Your task to perform on an android device: Open Wikipedia Image 0: 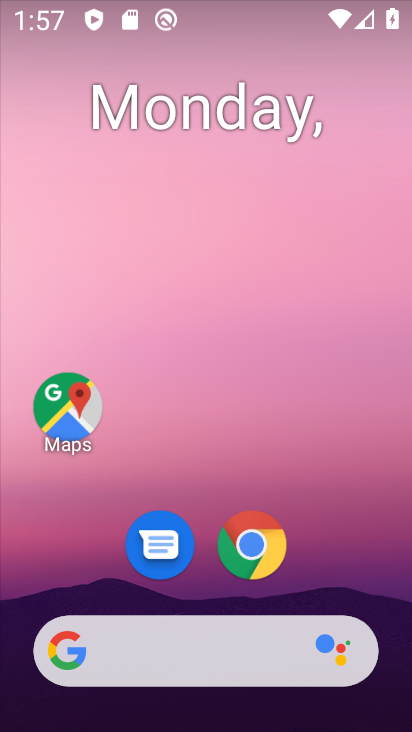
Step 0: drag from (233, 565) to (276, 203)
Your task to perform on an android device: Open Wikipedia Image 1: 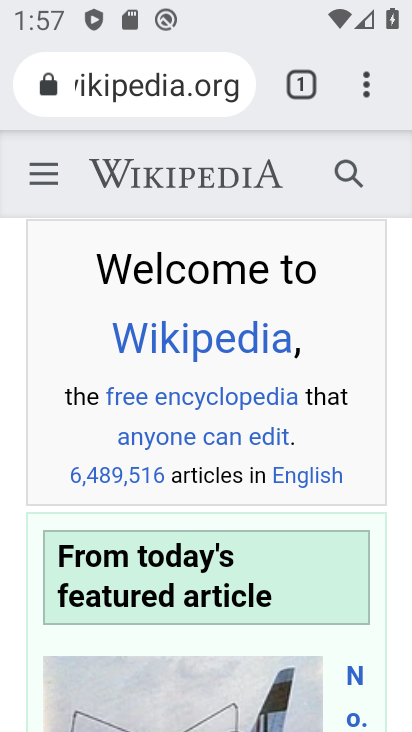
Step 1: press home button
Your task to perform on an android device: Open Wikipedia Image 2: 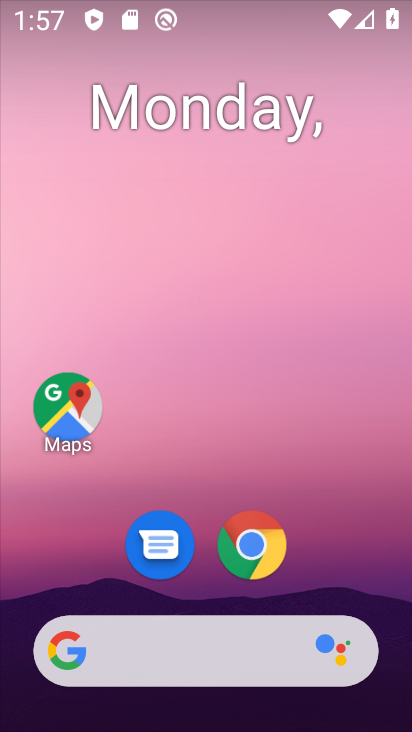
Step 2: drag from (194, 571) to (243, 119)
Your task to perform on an android device: Open Wikipedia Image 3: 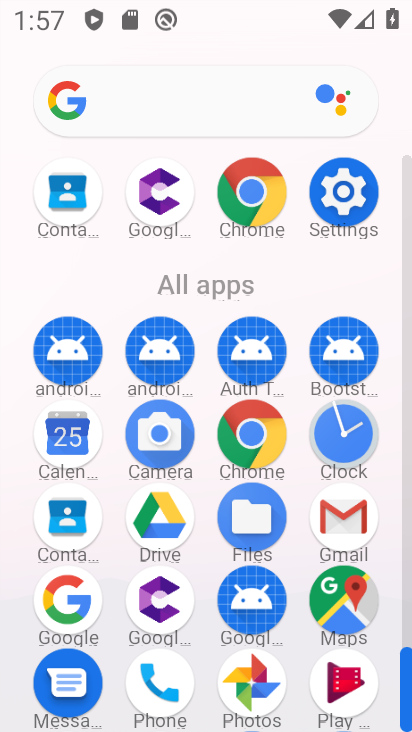
Step 3: click (254, 198)
Your task to perform on an android device: Open Wikipedia Image 4: 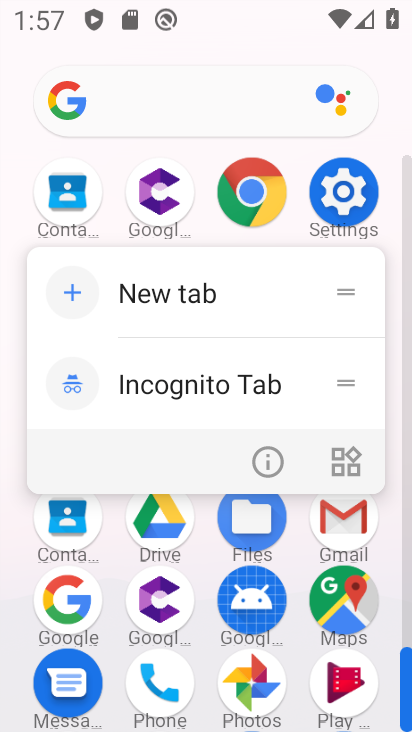
Step 4: click (248, 199)
Your task to perform on an android device: Open Wikipedia Image 5: 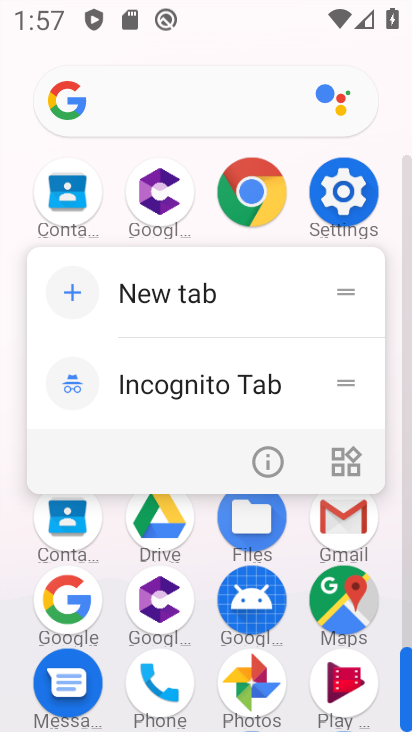
Step 5: click (258, 194)
Your task to perform on an android device: Open Wikipedia Image 6: 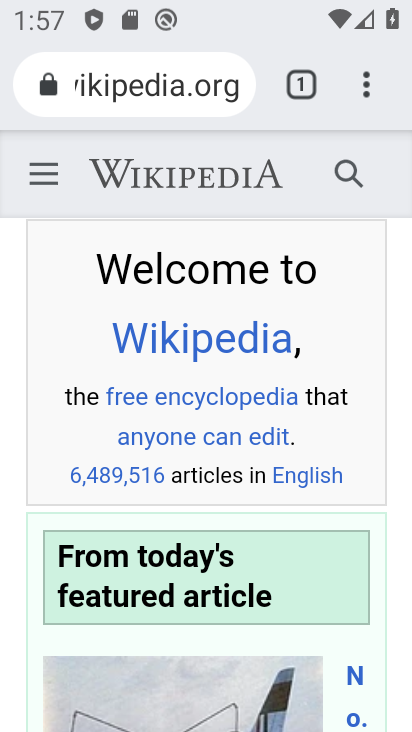
Step 6: task complete